Your task to perform on an android device: add a contact Image 0: 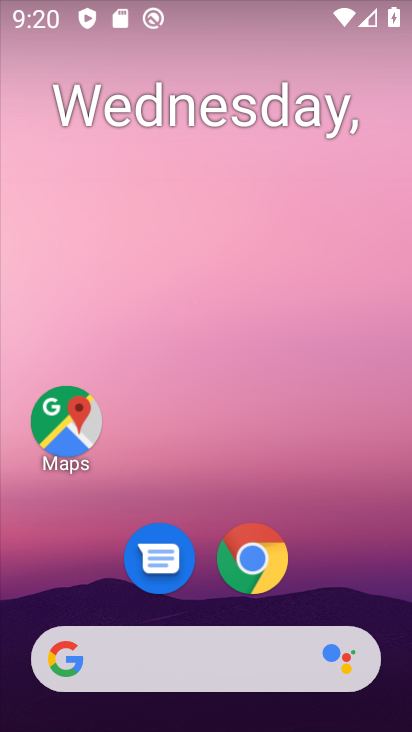
Step 0: drag from (198, 656) to (10, 456)
Your task to perform on an android device: add a contact Image 1: 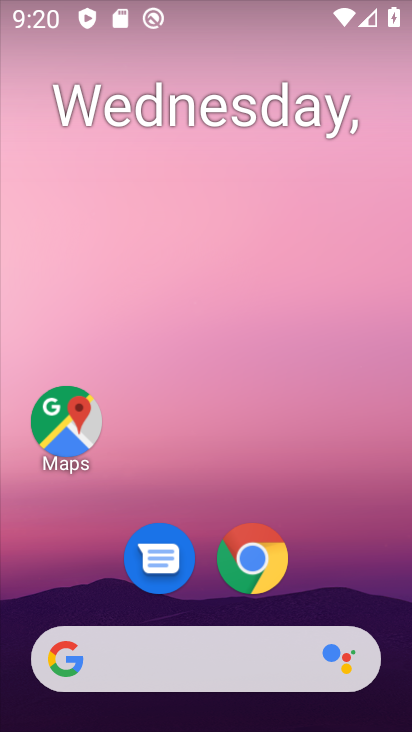
Step 1: drag from (201, 631) to (42, 4)
Your task to perform on an android device: add a contact Image 2: 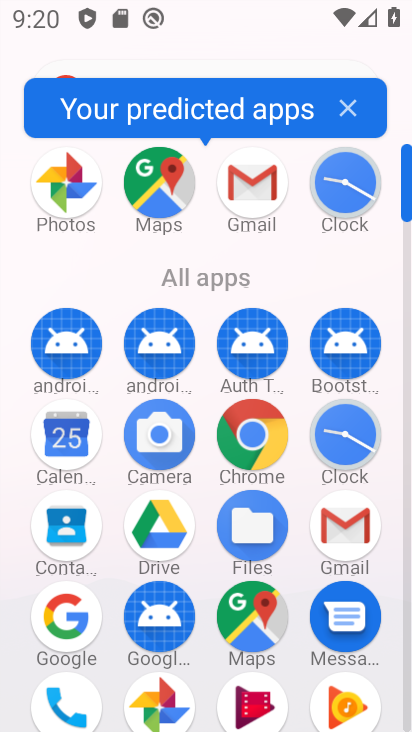
Step 2: click (57, 524)
Your task to perform on an android device: add a contact Image 3: 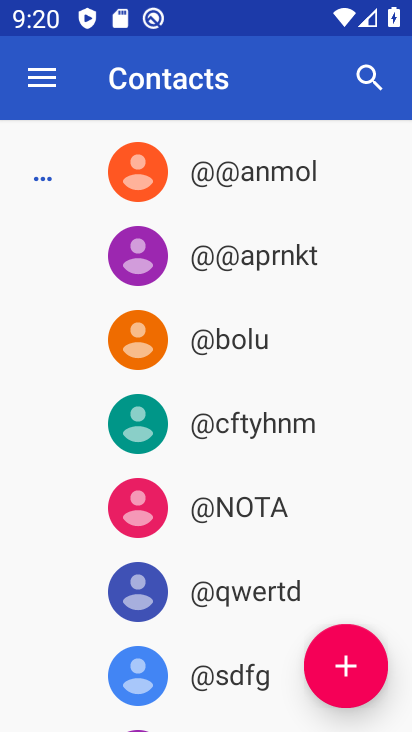
Step 3: click (337, 660)
Your task to perform on an android device: add a contact Image 4: 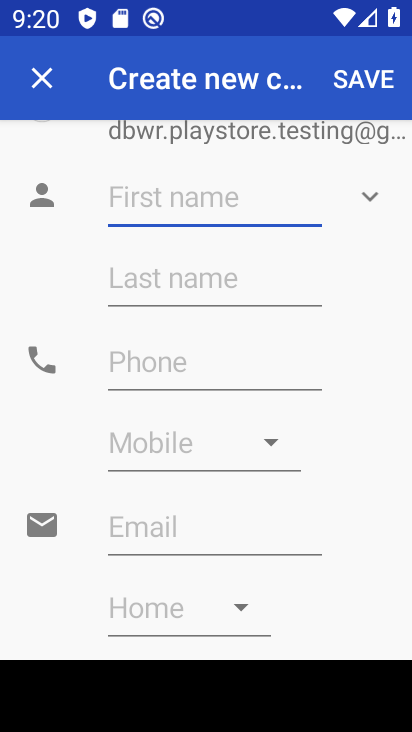
Step 4: type "jbvzxnv"
Your task to perform on an android device: add a contact Image 5: 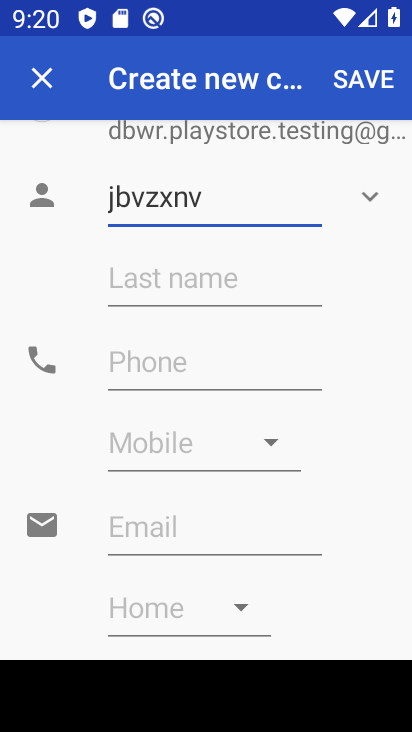
Step 5: click (178, 373)
Your task to perform on an android device: add a contact Image 6: 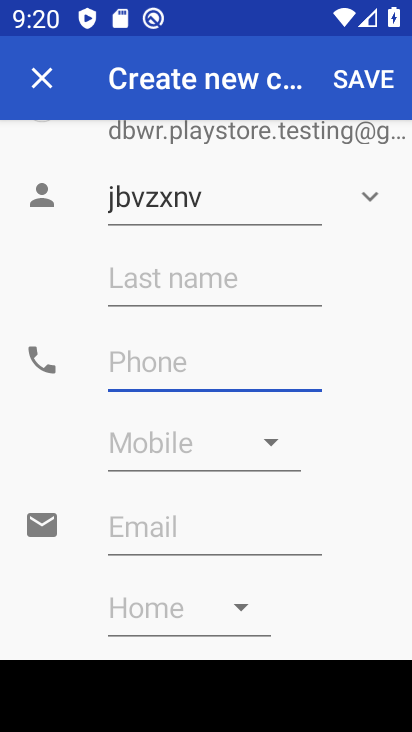
Step 6: type "5274823"
Your task to perform on an android device: add a contact Image 7: 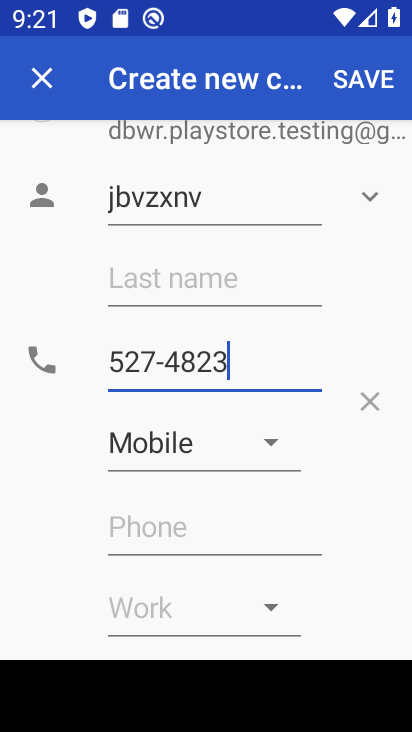
Step 7: click (347, 95)
Your task to perform on an android device: add a contact Image 8: 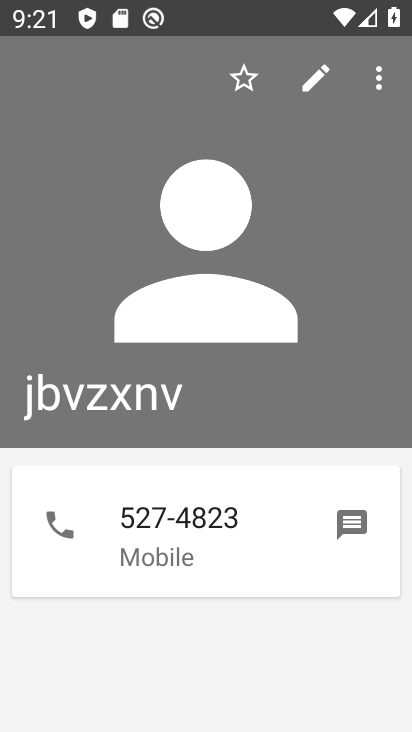
Step 8: task complete